Your task to perform on an android device: What's the weather today? Image 0: 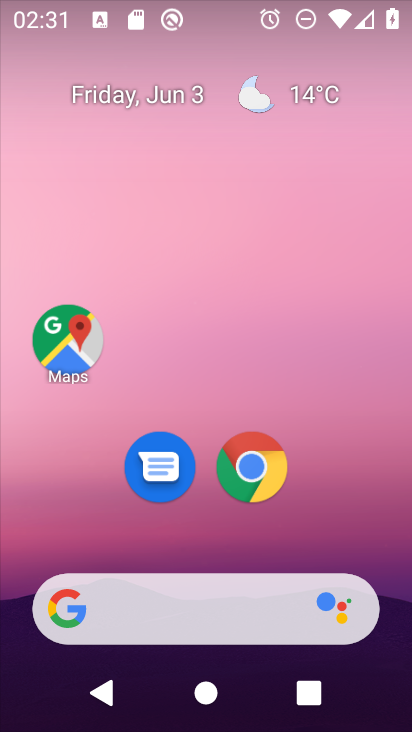
Step 0: click (313, 97)
Your task to perform on an android device: What's the weather today? Image 1: 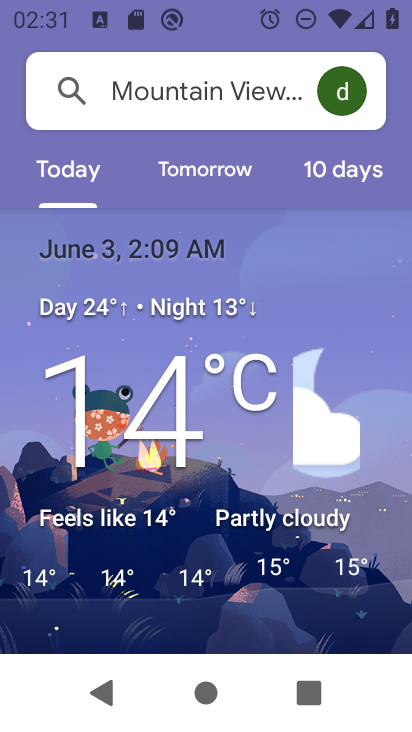
Step 1: task complete